Your task to perform on an android device: Empty the shopping cart on bestbuy.com. Image 0: 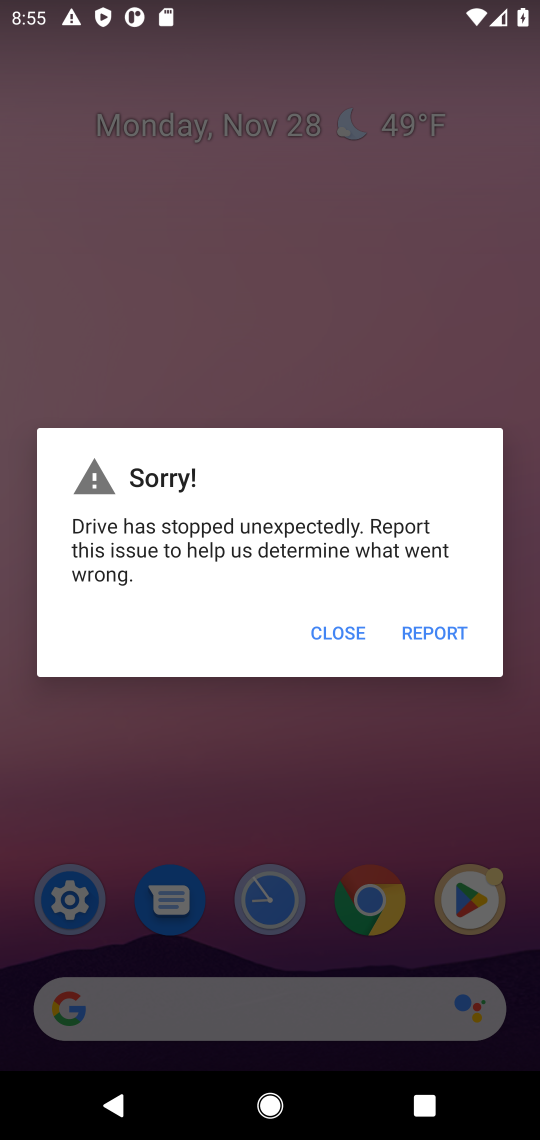
Step 0: press home button
Your task to perform on an android device: Empty the shopping cart on bestbuy.com. Image 1: 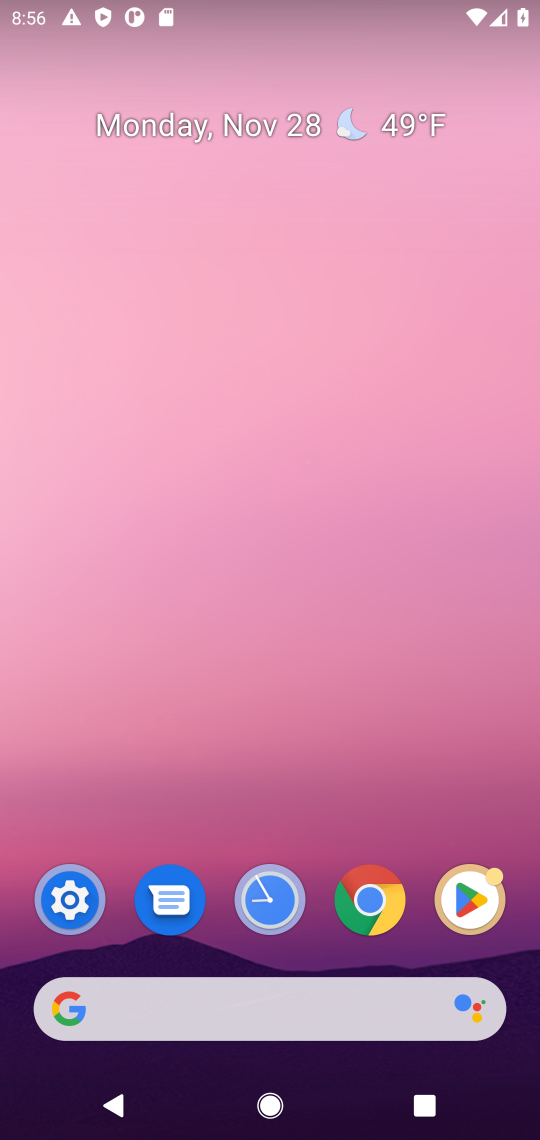
Step 1: click (247, 1030)
Your task to perform on an android device: Empty the shopping cart on bestbuy.com. Image 2: 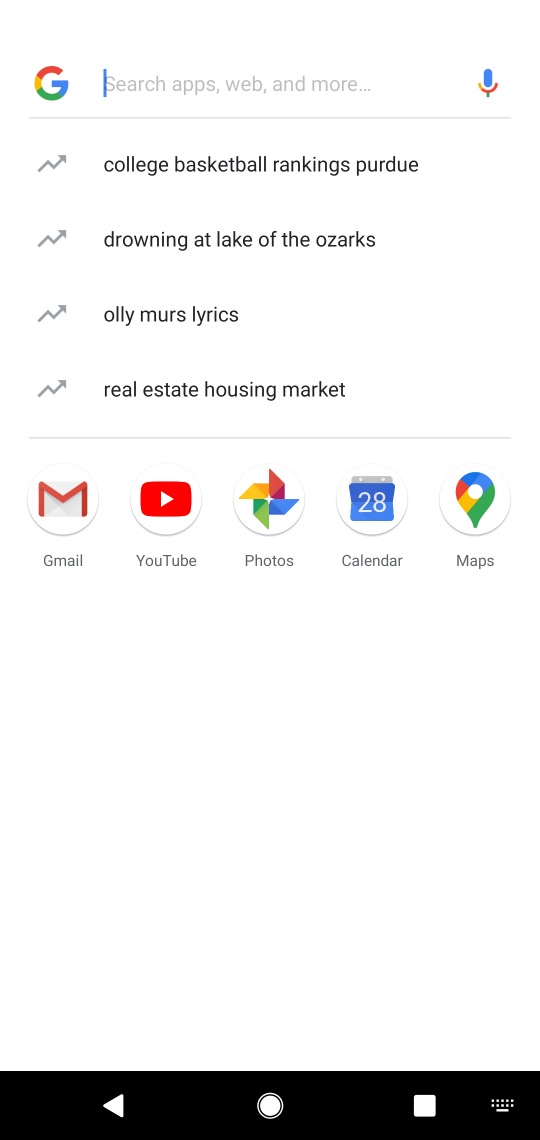
Step 2: type "bestbuy"
Your task to perform on an android device: Empty the shopping cart on bestbuy.com. Image 3: 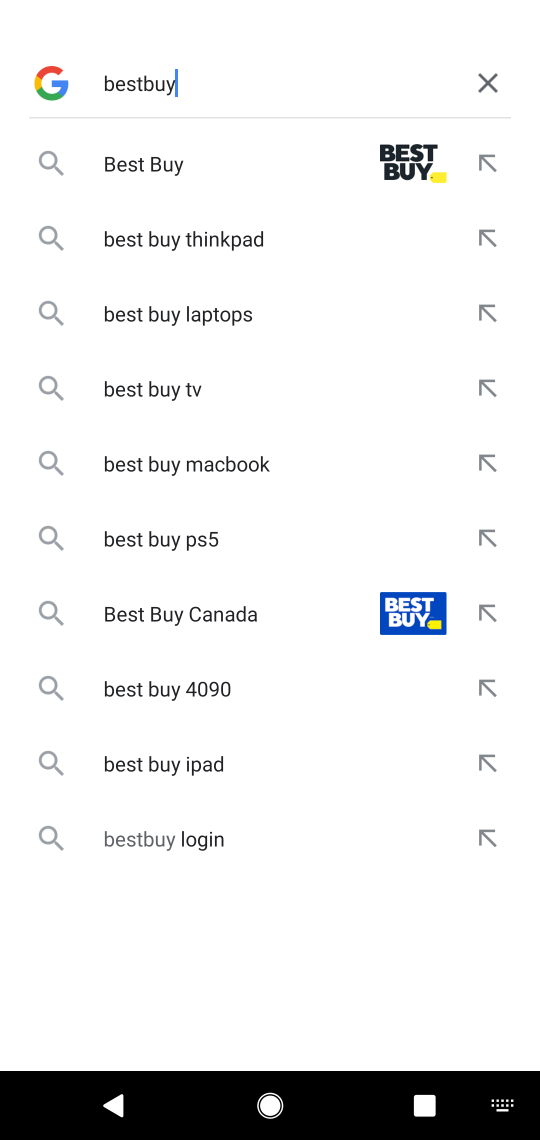
Step 3: click (186, 163)
Your task to perform on an android device: Empty the shopping cart on bestbuy.com. Image 4: 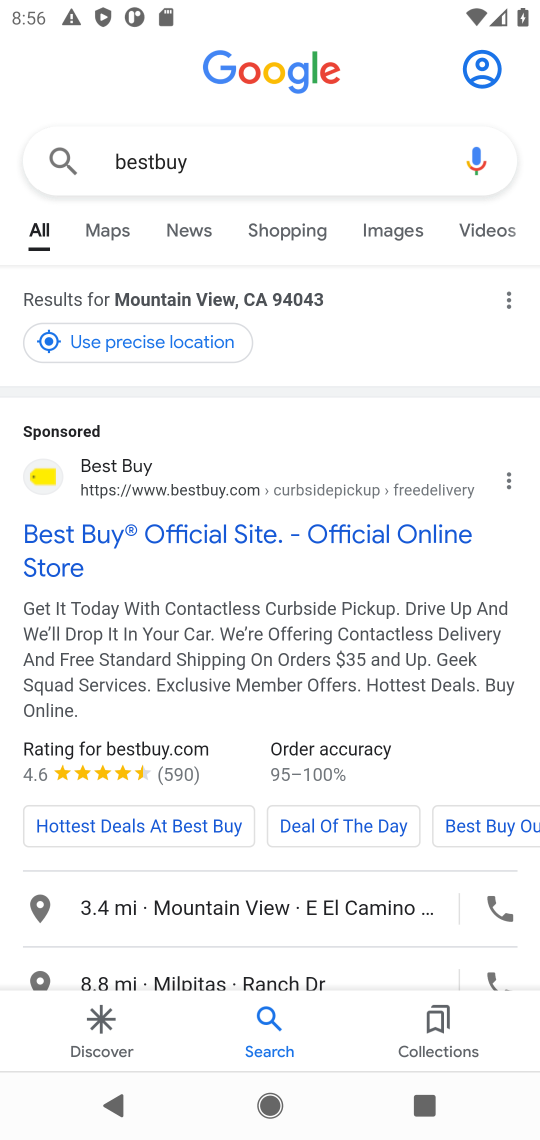
Step 4: click (215, 545)
Your task to perform on an android device: Empty the shopping cart on bestbuy.com. Image 5: 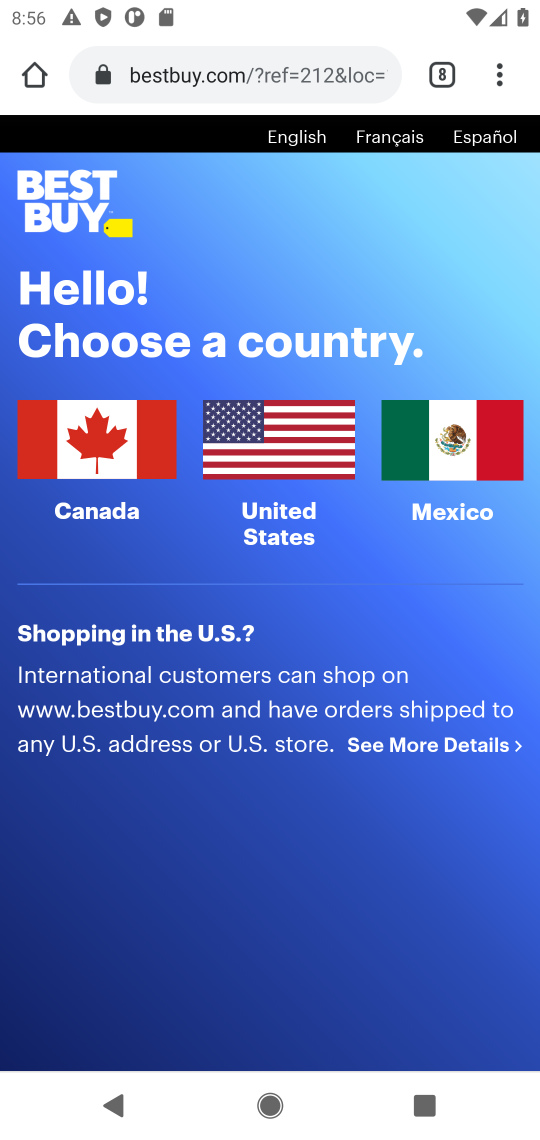
Step 5: click (105, 460)
Your task to perform on an android device: Empty the shopping cart on bestbuy.com. Image 6: 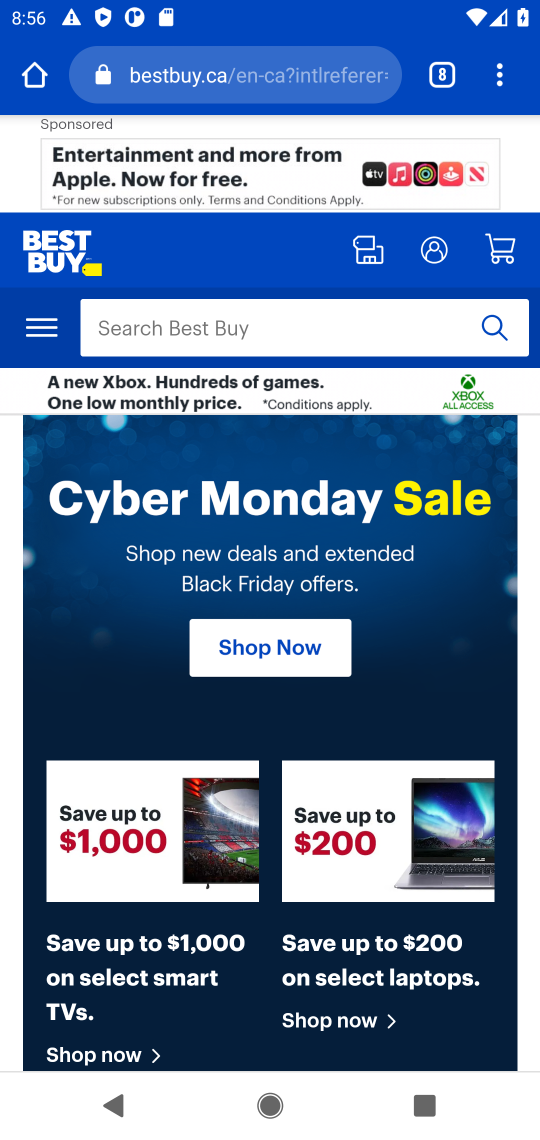
Step 6: click (174, 315)
Your task to perform on an android device: Empty the shopping cart on bestbuy.com. Image 7: 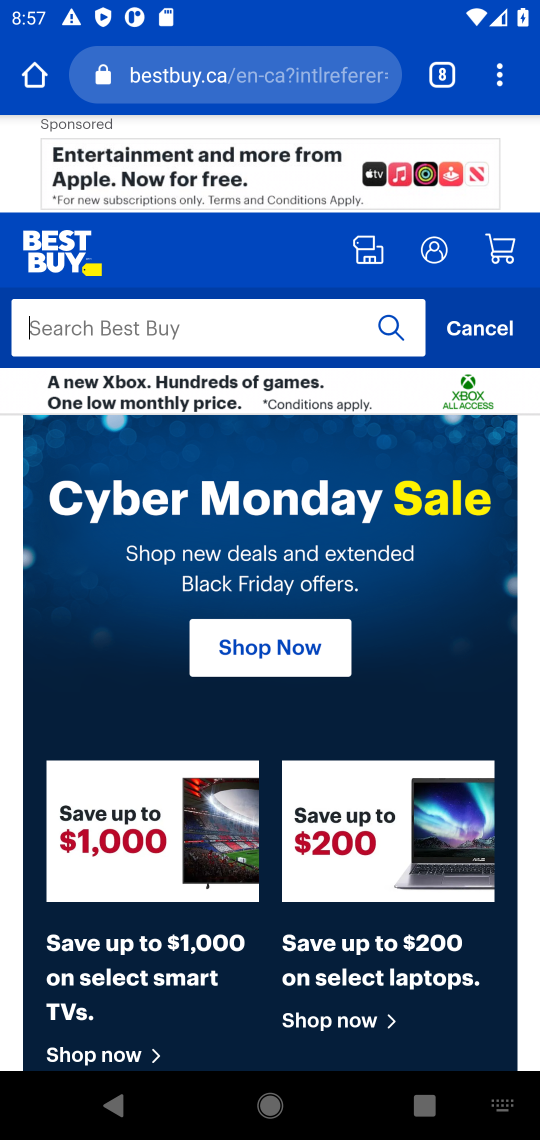
Step 7: task complete